Your task to perform on an android device: open sync settings in chrome Image 0: 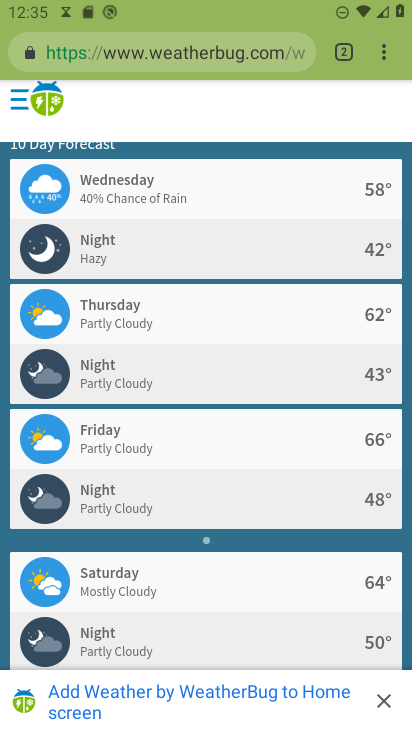
Step 0: press home button
Your task to perform on an android device: open sync settings in chrome Image 1: 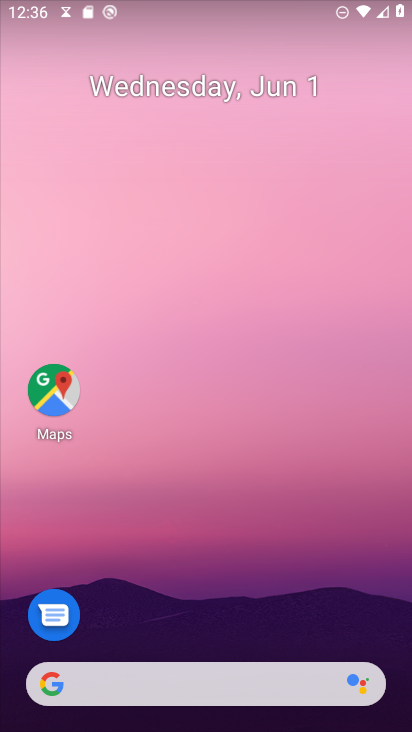
Step 1: drag from (279, 687) to (276, 98)
Your task to perform on an android device: open sync settings in chrome Image 2: 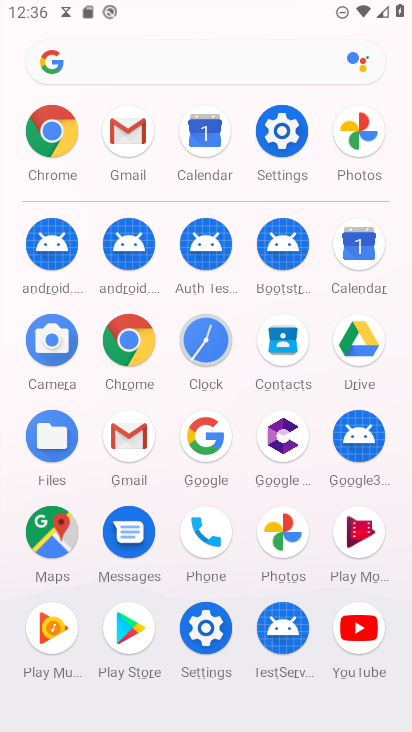
Step 2: click (146, 339)
Your task to perform on an android device: open sync settings in chrome Image 3: 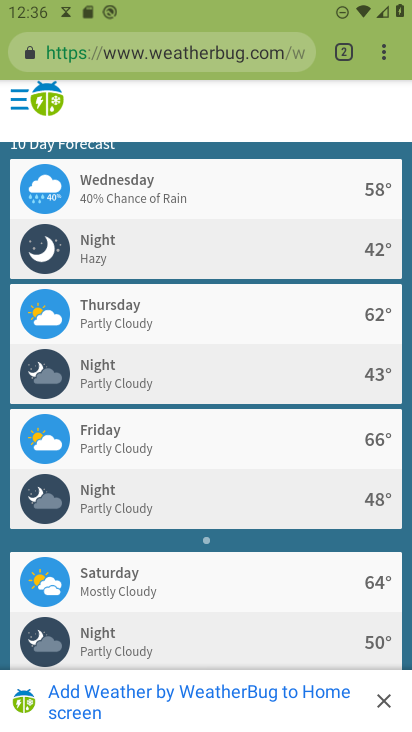
Step 3: drag from (388, 49) to (205, 627)
Your task to perform on an android device: open sync settings in chrome Image 4: 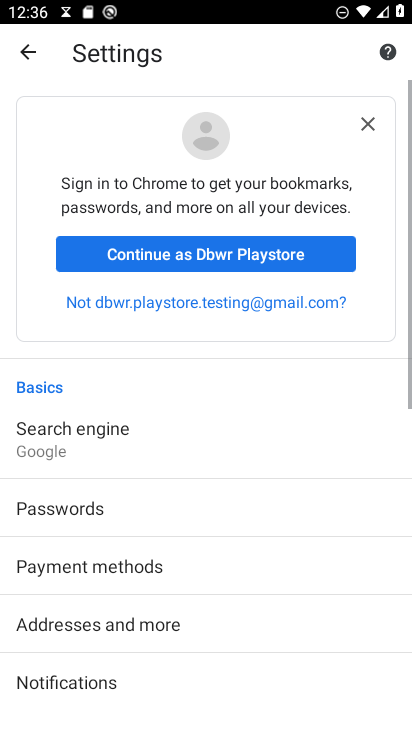
Step 4: drag from (205, 627) to (192, 73)
Your task to perform on an android device: open sync settings in chrome Image 5: 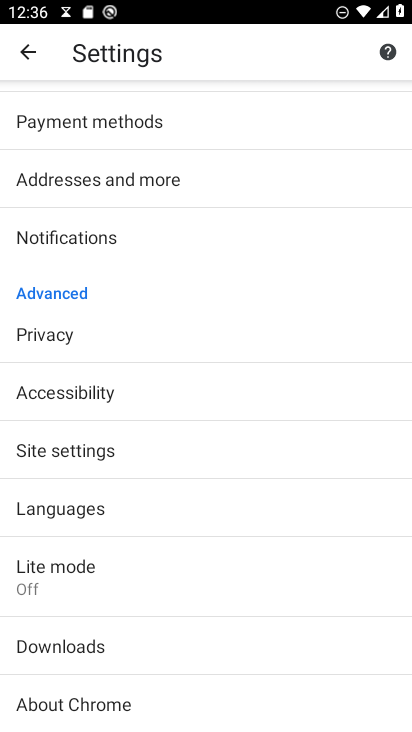
Step 5: click (86, 459)
Your task to perform on an android device: open sync settings in chrome Image 6: 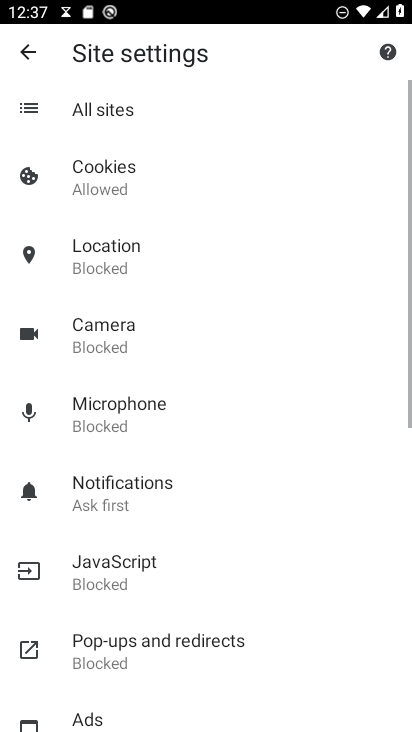
Step 6: drag from (219, 588) to (244, 271)
Your task to perform on an android device: open sync settings in chrome Image 7: 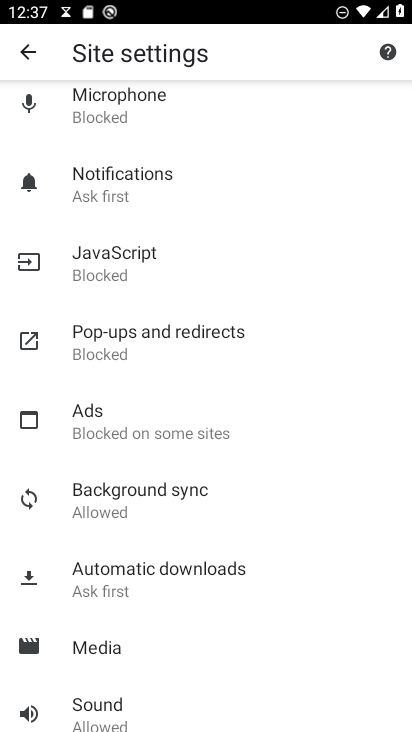
Step 7: click (149, 493)
Your task to perform on an android device: open sync settings in chrome Image 8: 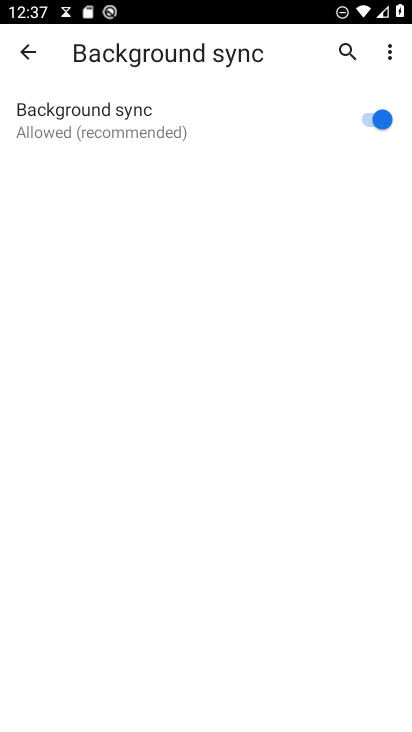
Step 8: task complete